Your task to perform on an android device: clear all cookies in the chrome app Image 0: 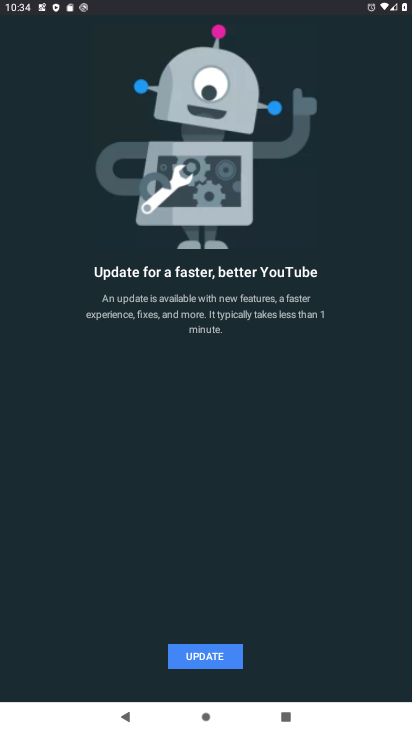
Step 0: press home button
Your task to perform on an android device: clear all cookies in the chrome app Image 1: 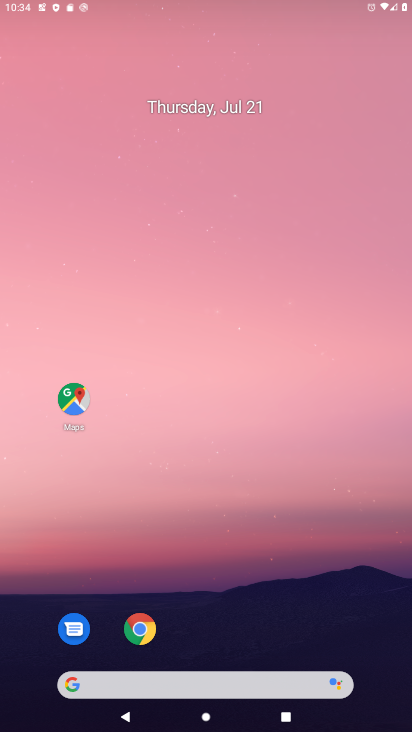
Step 1: drag from (340, 578) to (309, 262)
Your task to perform on an android device: clear all cookies in the chrome app Image 2: 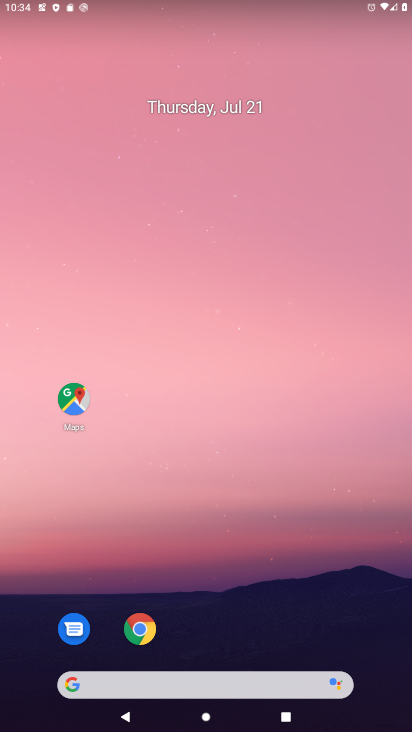
Step 2: click (121, 634)
Your task to perform on an android device: clear all cookies in the chrome app Image 3: 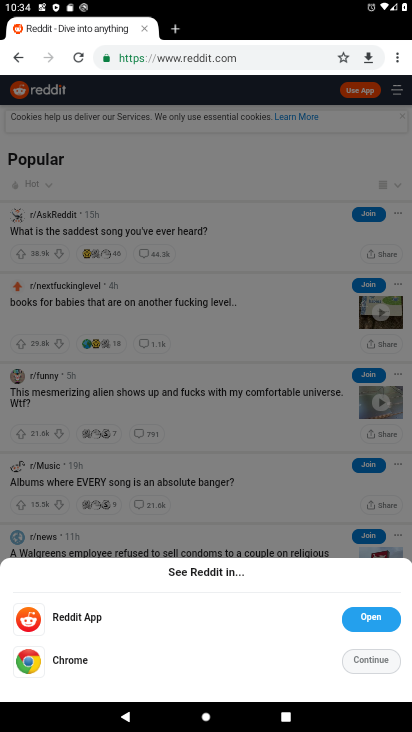
Step 3: drag from (394, 48) to (278, 373)
Your task to perform on an android device: clear all cookies in the chrome app Image 4: 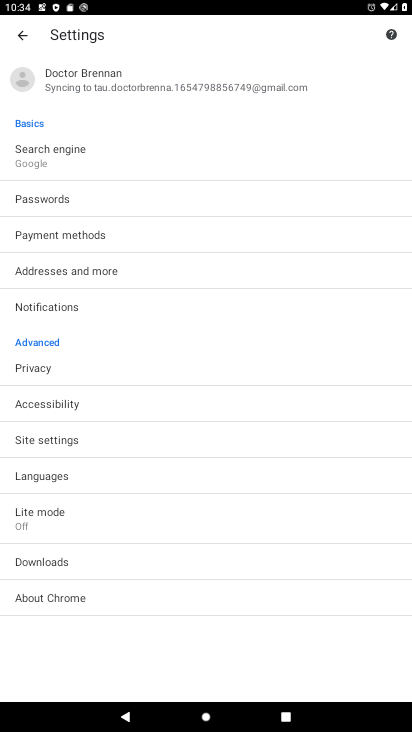
Step 4: click (42, 366)
Your task to perform on an android device: clear all cookies in the chrome app Image 5: 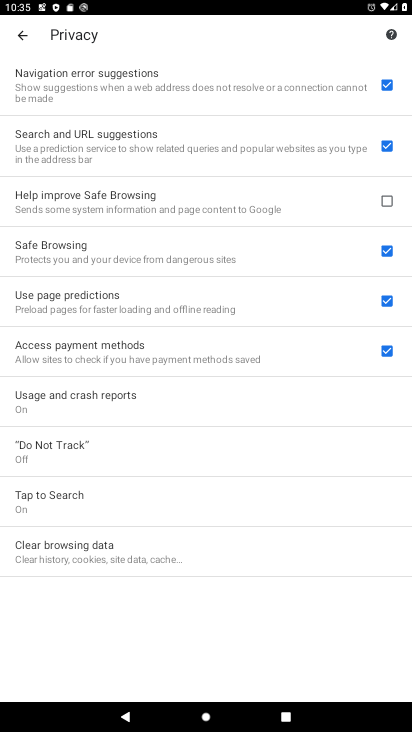
Step 5: click (69, 535)
Your task to perform on an android device: clear all cookies in the chrome app Image 6: 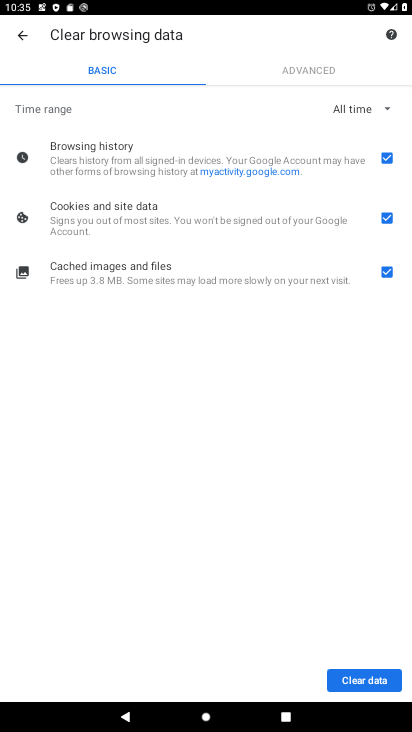
Step 6: click (350, 675)
Your task to perform on an android device: clear all cookies in the chrome app Image 7: 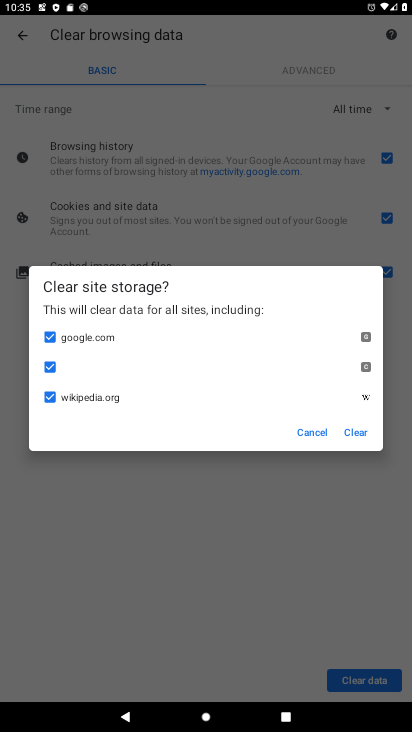
Step 7: click (362, 427)
Your task to perform on an android device: clear all cookies in the chrome app Image 8: 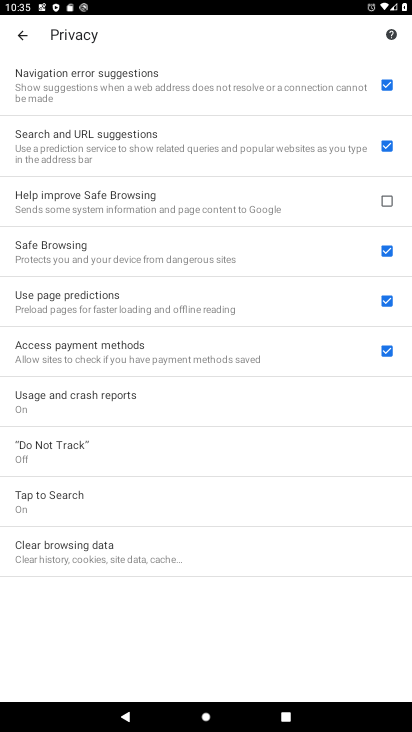
Step 8: task complete